Your task to perform on an android device: What's the weather going to be this weekend? Image 0: 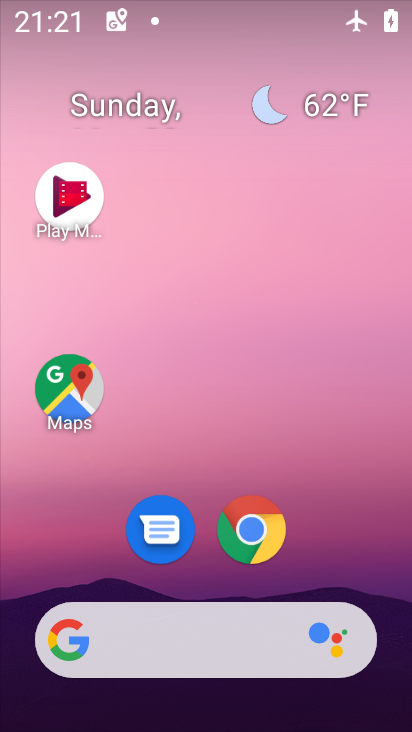
Step 0: drag from (264, 487) to (215, 142)
Your task to perform on an android device: What's the weather going to be this weekend? Image 1: 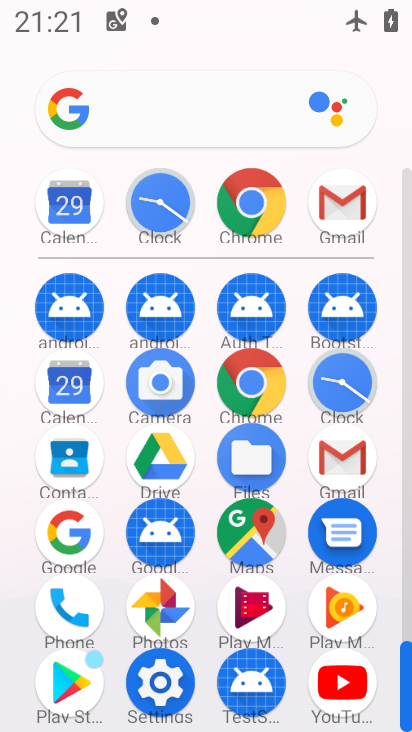
Step 1: task complete